Your task to perform on an android device: change the upload size in google photos Image 0: 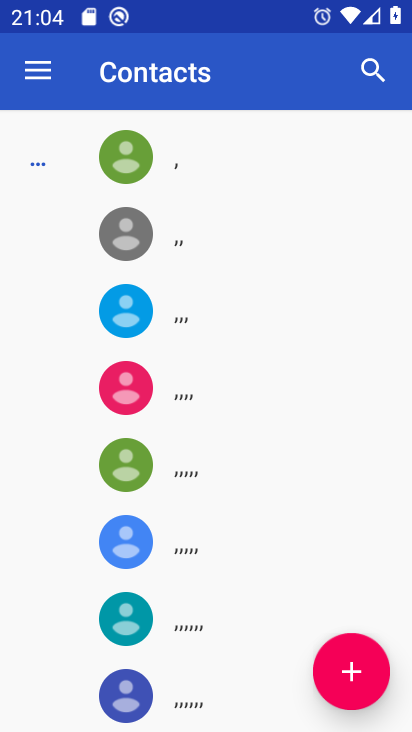
Step 0: press home button
Your task to perform on an android device: change the upload size in google photos Image 1: 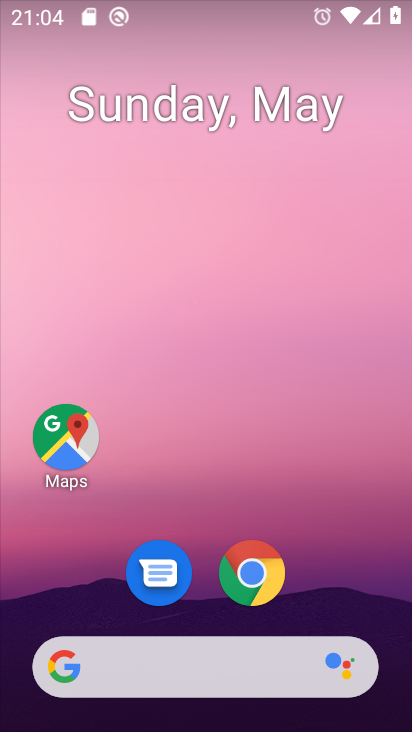
Step 1: drag from (272, 493) to (264, 0)
Your task to perform on an android device: change the upload size in google photos Image 2: 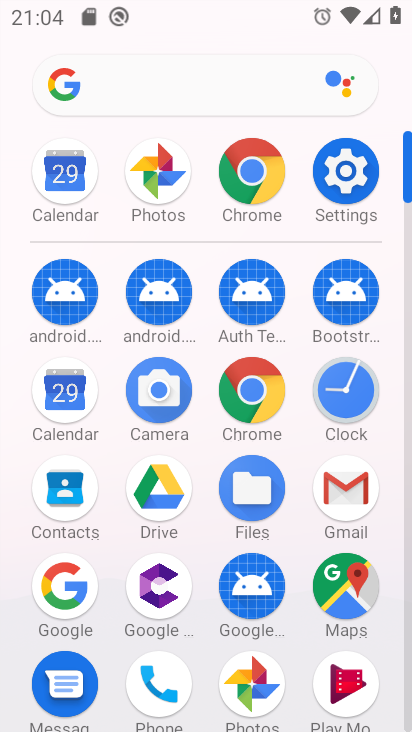
Step 2: click (158, 178)
Your task to perform on an android device: change the upload size in google photos Image 3: 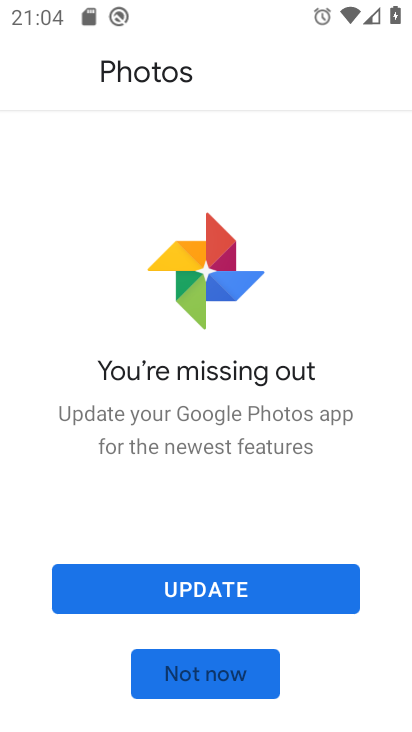
Step 3: click (224, 584)
Your task to perform on an android device: change the upload size in google photos Image 4: 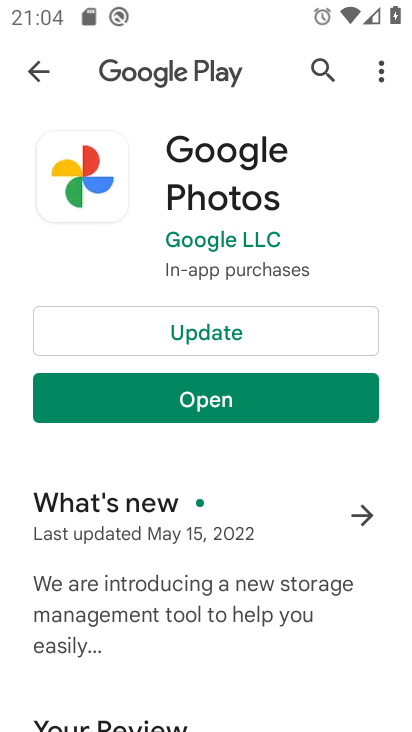
Step 4: click (241, 400)
Your task to perform on an android device: change the upload size in google photos Image 5: 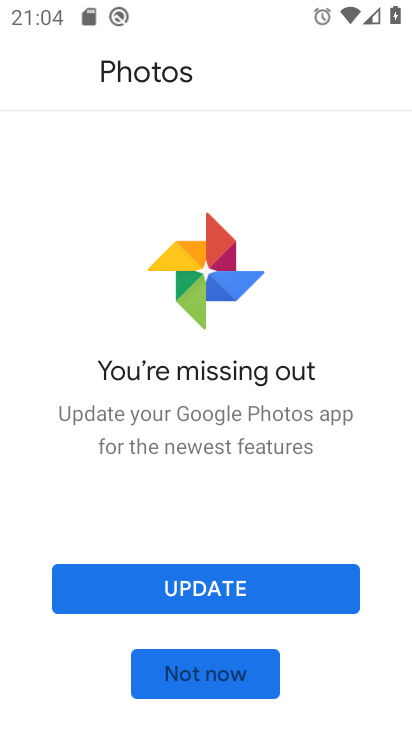
Step 5: click (217, 589)
Your task to perform on an android device: change the upload size in google photos Image 6: 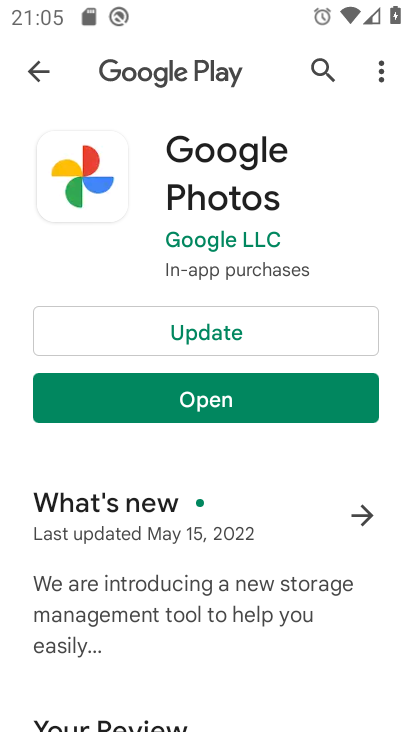
Step 6: click (282, 399)
Your task to perform on an android device: change the upload size in google photos Image 7: 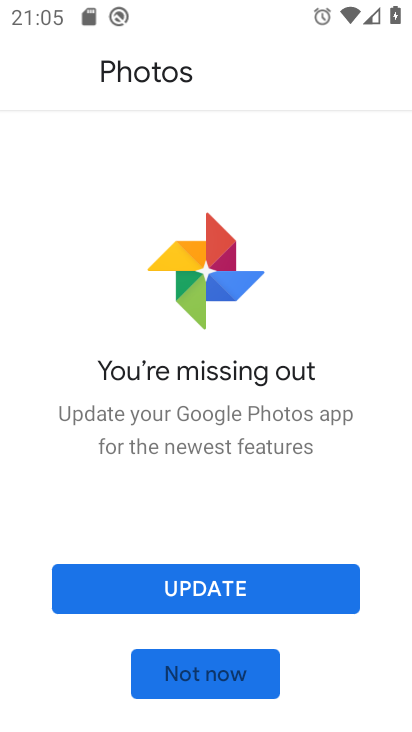
Step 7: click (60, 78)
Your task to perform on an android device: change the upload size in google photos Image 8: 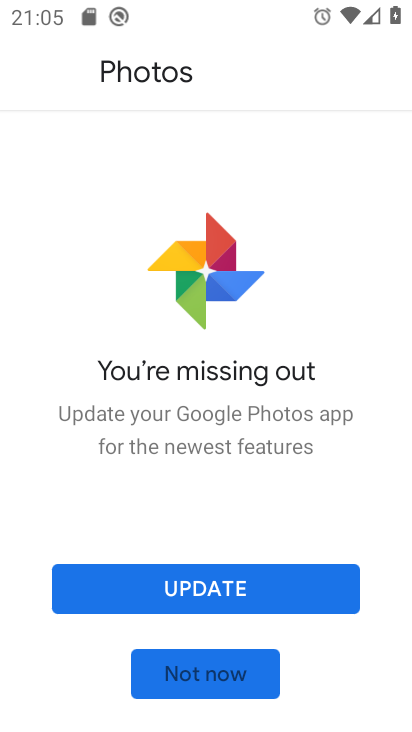
Step 8: click (209, 666)
Your task to perform on an android device: change the upload size in google photos Image 9: 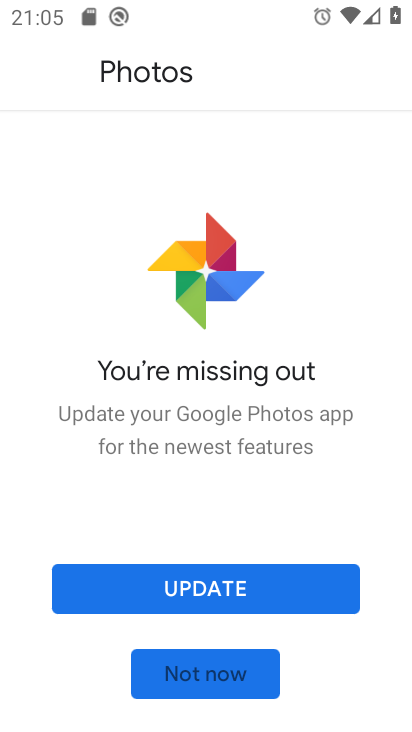
Step 9: click (231, 678)
Your task to perform on an android device: change the upload size in google photos Image 10: 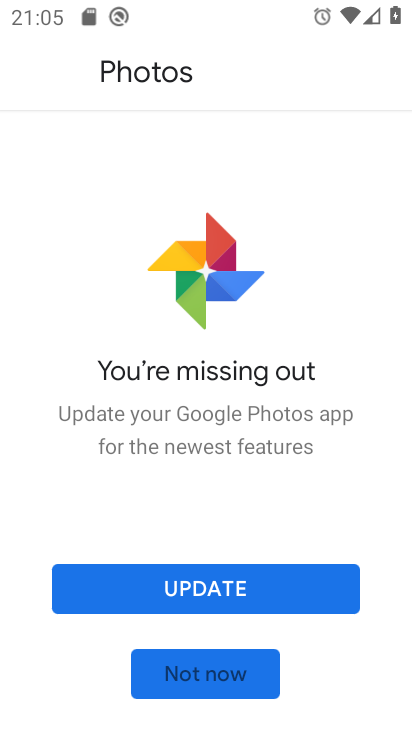
Step 10: click (231, 677)
Your task to perform on an android device: change the upload size in google photos Image 11: 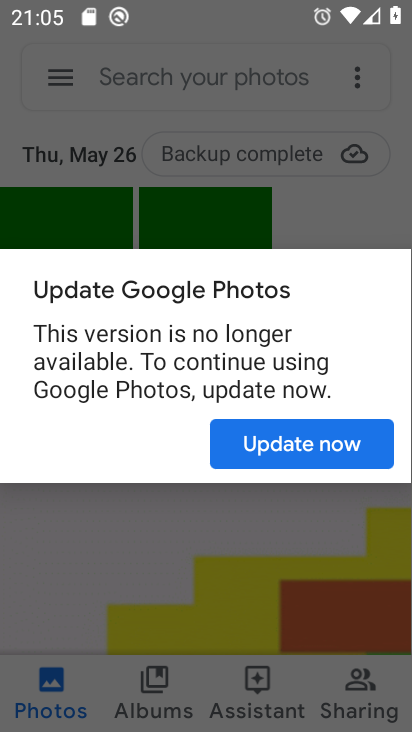
Step 11: click (367, 433)
Your task to perform on an android device: change the upload size in google photos Image 12: 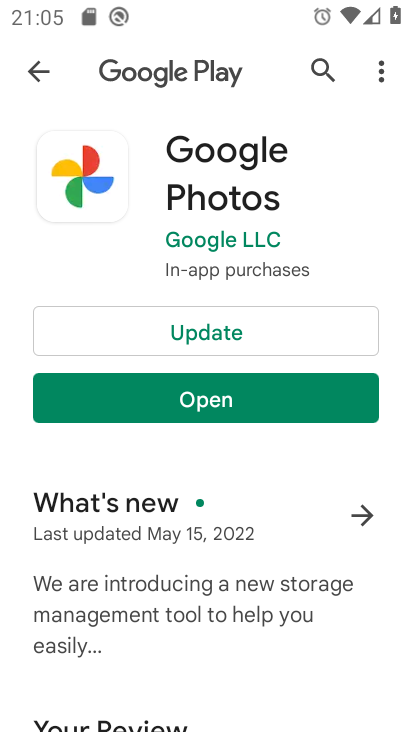
Step 12: click (276, 383)
Your task to perform on an android device: change the upload size in google photos Image 13: 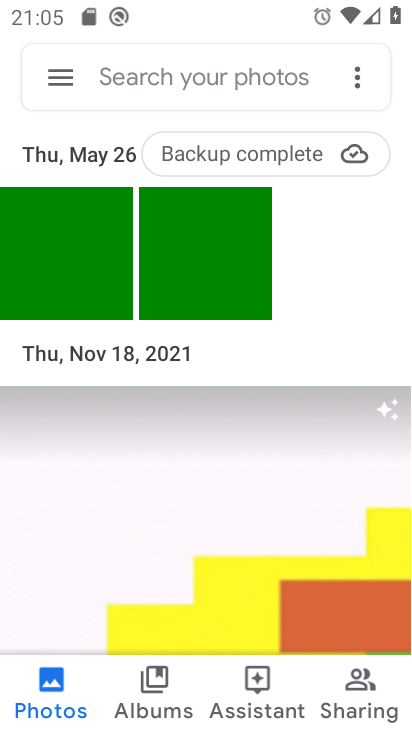
Step 13: click (63, 79)
Your task to perform on an android device: change the upload size in google photos Image 14: 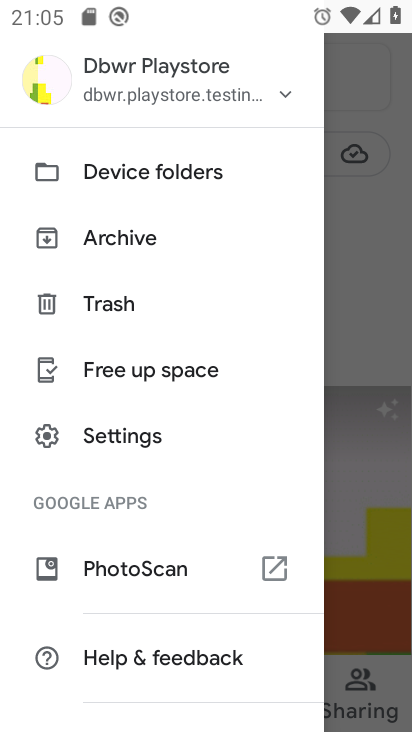
Step 14: click (114, 426)
Your task to perform on an android device: change the upload size in google photos Image 15: 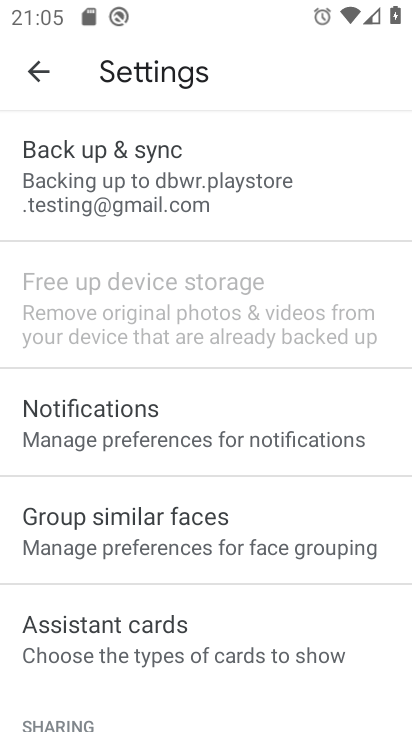
Step 15: drag from (242, 606) to (310, 661)
Your task to perform on an android device: change the upload size in google photos Image 16: 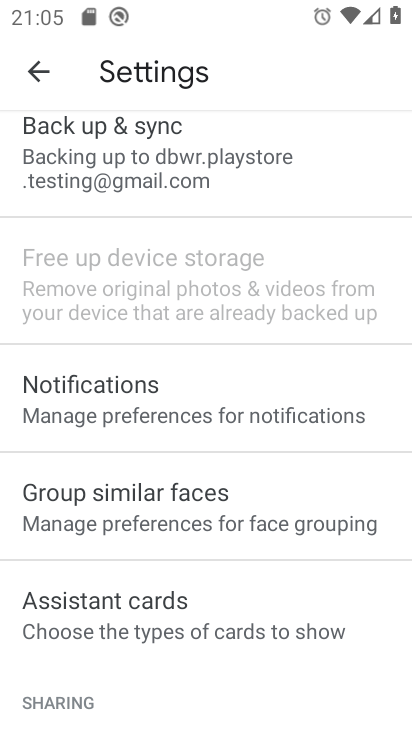
Step 16: click (174, 163)
Your task to perform on an android device: change the upload size in google photos Image 17: 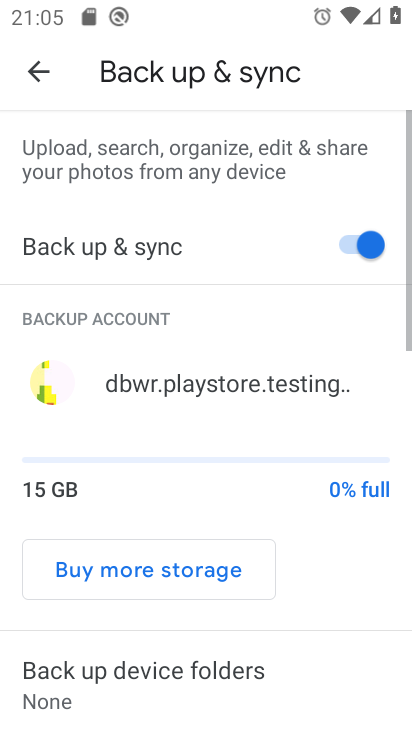
Step 17: drag from (188, 484) to (176, 147)
Your task to perform on an android device: change the upload size in google photos Image 18: 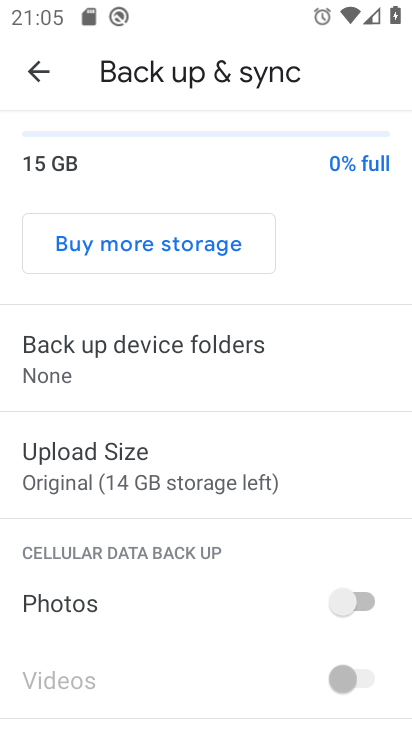
Step 18: click (166, 447)
Your task to perform on an android device: change the upload size in google photos Image 19: 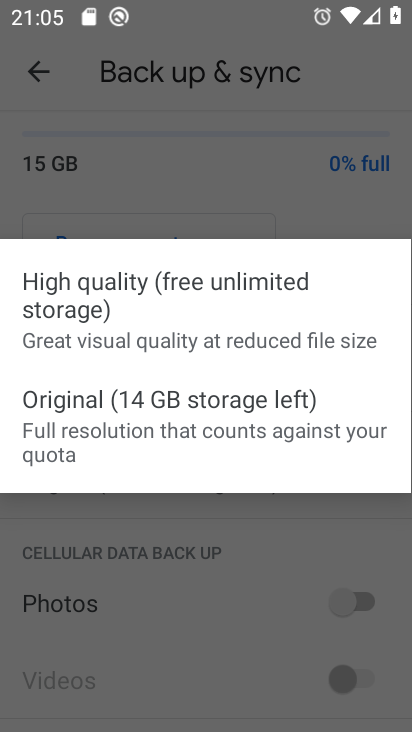
Step 19: click (183, 317)
Your task to perform on an android device: change the upload size in google photos Image 20: 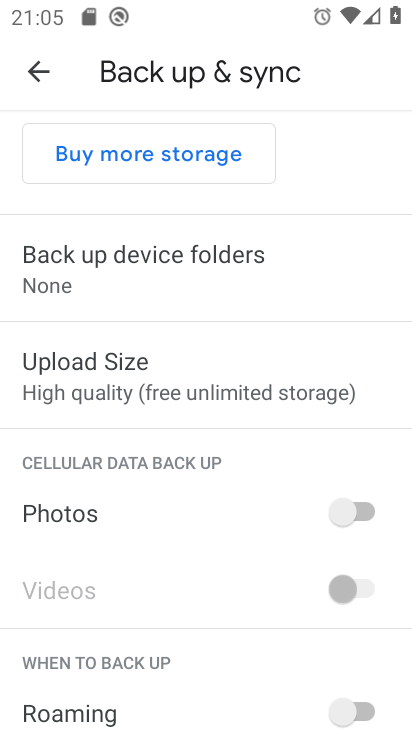
Step 20: task complete